Your task to perform on an android device: all mails in gmail Image 0: 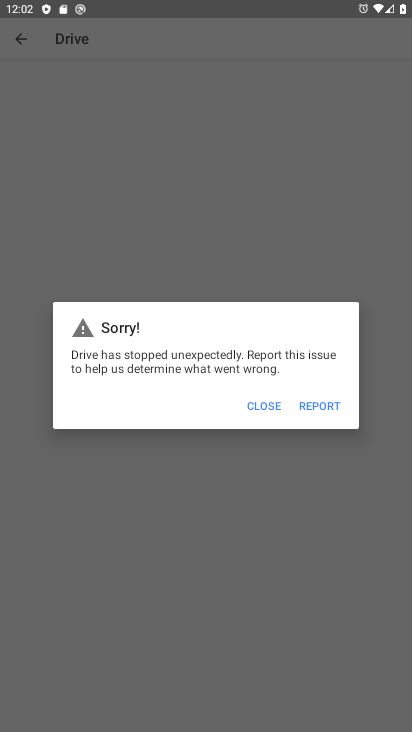
Step 0: press home button
Your task to perform on an android device: all mails in gmail Image 1: 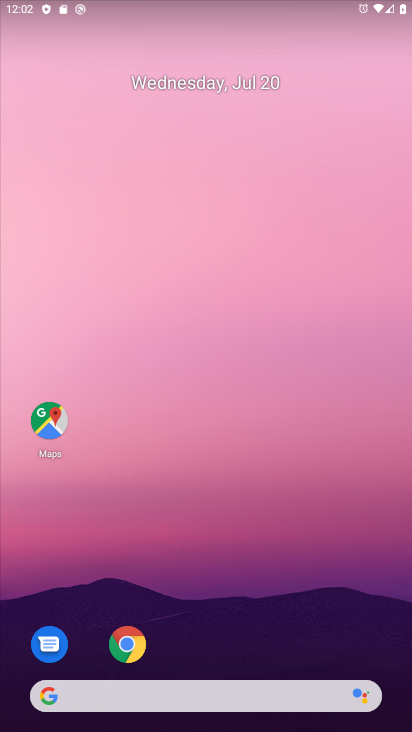
Step 1: task complete